Your task to perform on an android device: Open Wikipedia Image 0: 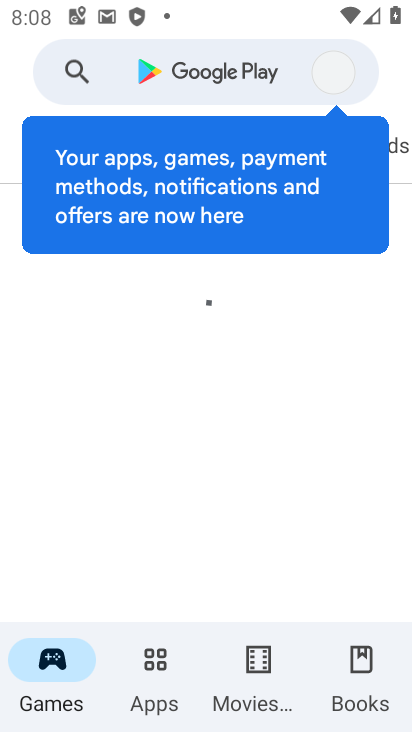
Step 0: press home button
Your task to perform on an android device: Open Wikipedia Image 1: 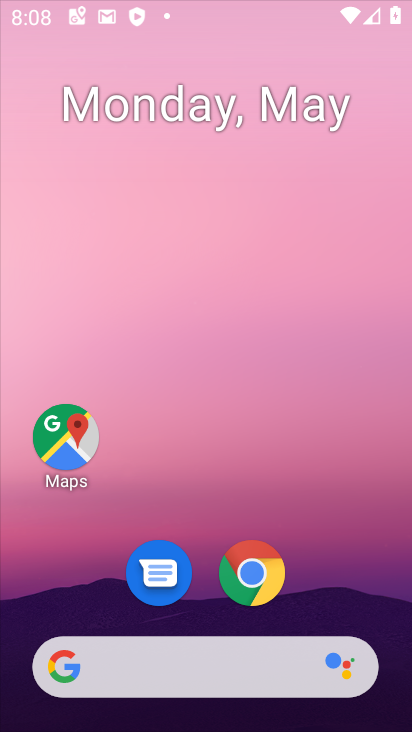
Step 1: drag from (220, 627) to (272, 192)
Your task to perform on an android device: Open Wikipedia Image 2: 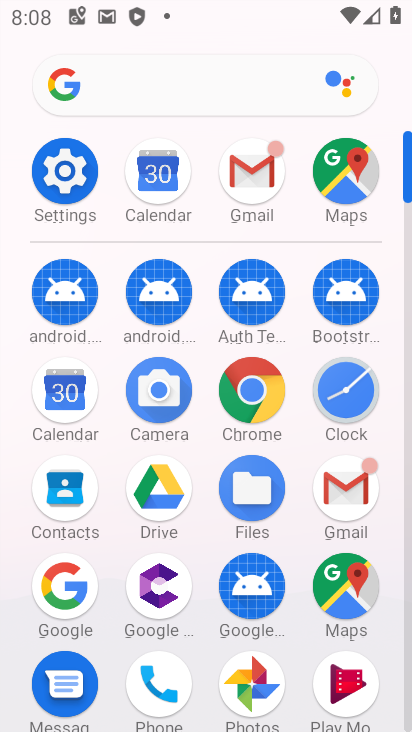
Step 2: click (261, 409)
Your task to perform on an android device: Open Wikipedia Image 3: 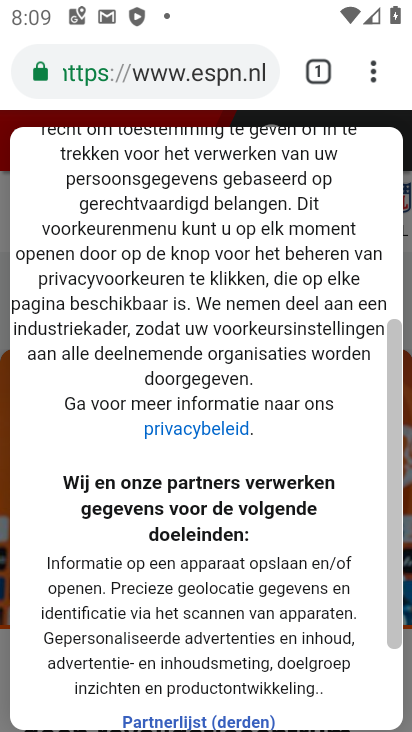
Step 3: click (244, 77)
Your task to perform on an android device: Open Wikipedia Image 4: 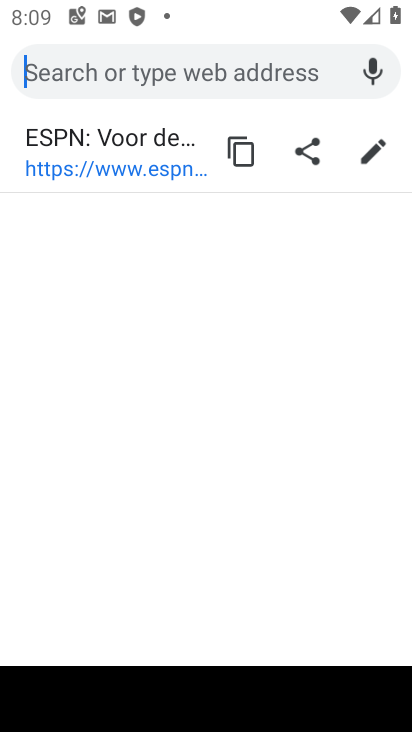
Step 4: type "wiki"
Your task to perform on an android device: Open Wikipedia Image 5: 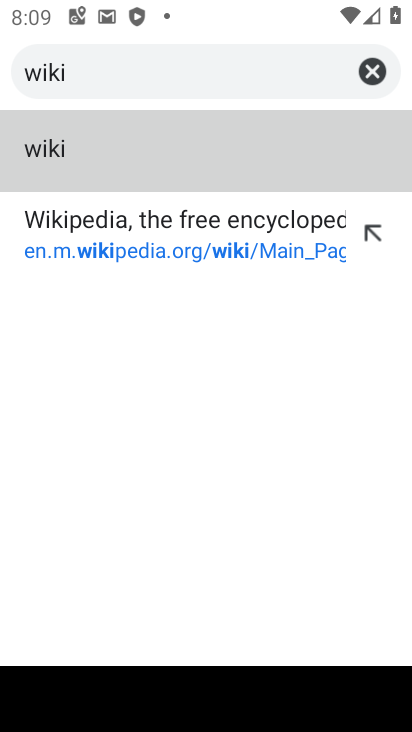
Step 5: click (215, 250)
Your task to perform on an android device: Open Wikipedia Image 6: 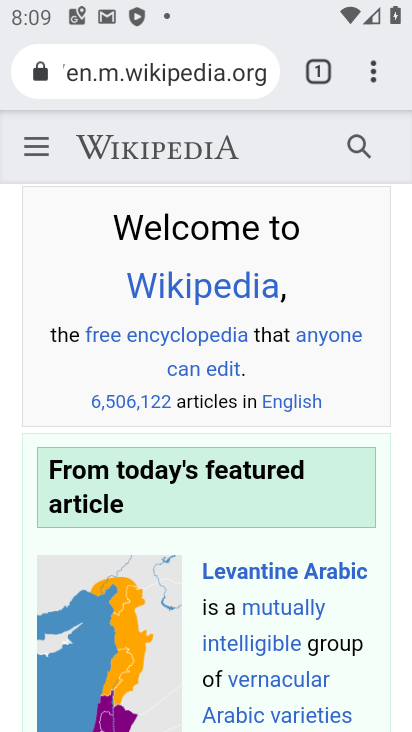
Step 6: task complete